Your task to perform on an android device: Check the weather Image 0: 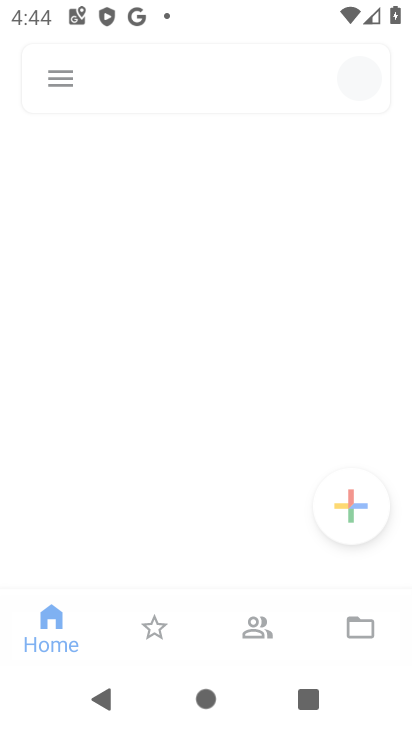
Step 0: drag from (382, 557) to (307, 121)
Your task to perform on an android device: Check the weather Image 1: 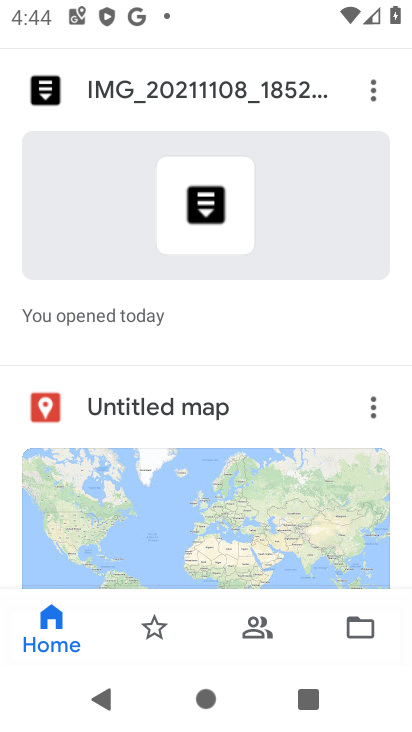
Step 1: press home button
Your task to perform on an android device: Check the weather Image 2: 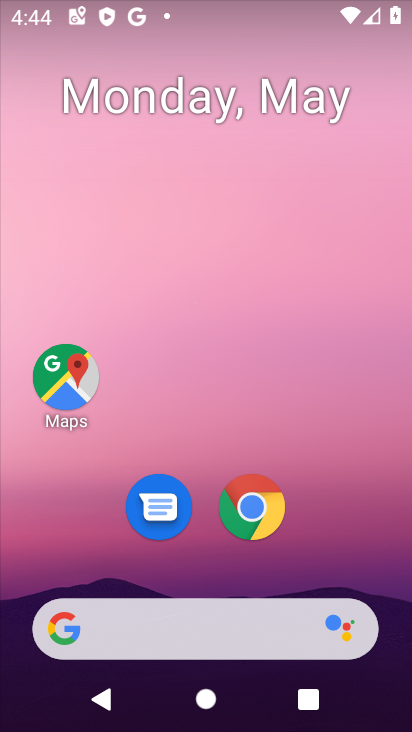
Step 2: drag from (332, 510) to (272, 155)
Your task to perform on an android device: Check the weather Image 3: 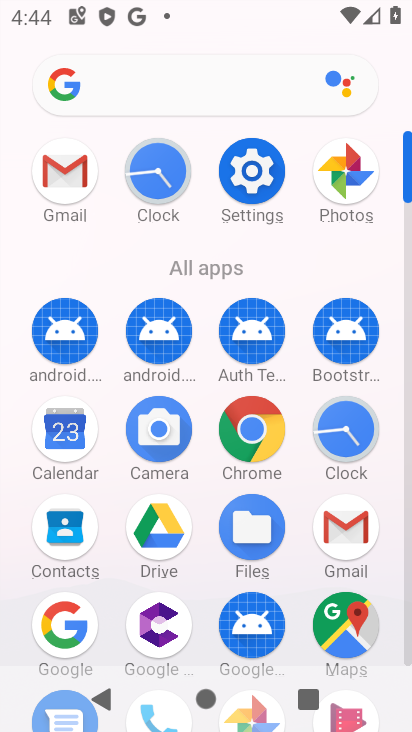
Step 3: click (46, 83)
Your task to perform on an android device: Check the weather Image 4: 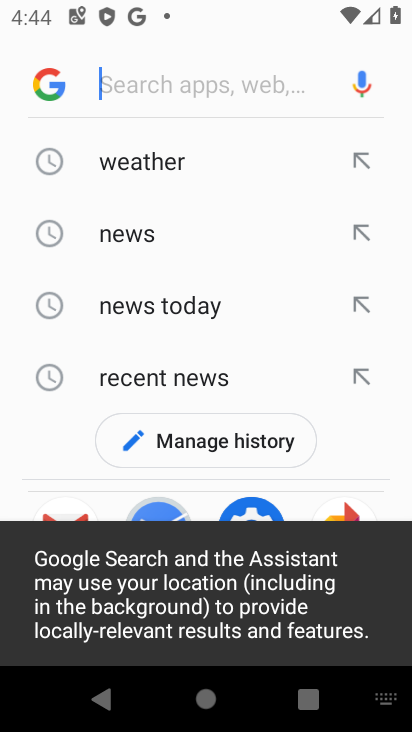
Step 4: click (63, 94)
Your task to perform on an android device: Check the weather Image 5: 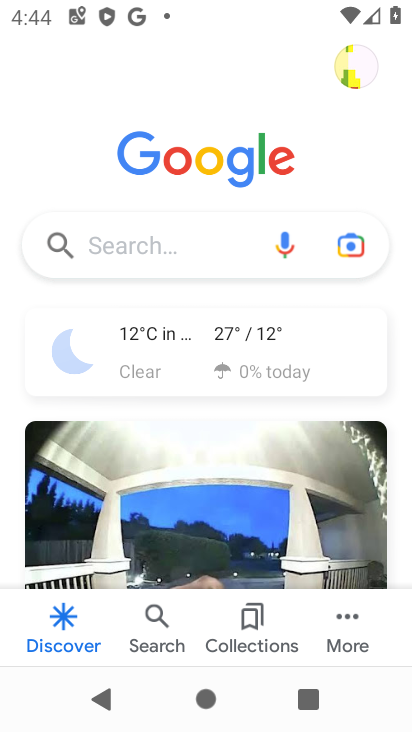
Step 5: click (273, 336)
Your task to perform on an android device: Check the weather Image 6: 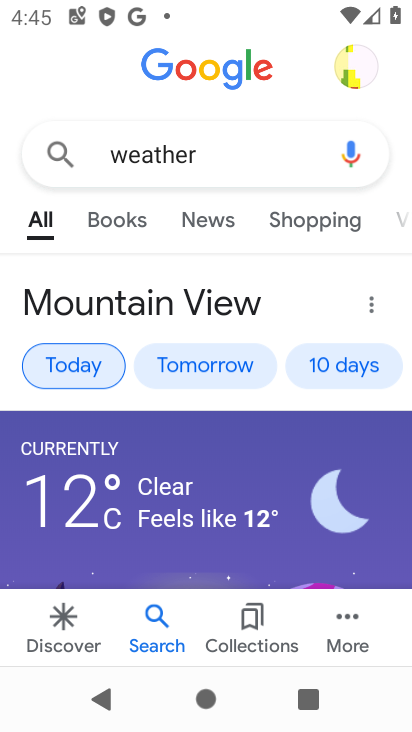
Step 6: task complete